Your task to perform on an android device: change the clock style Image 0: 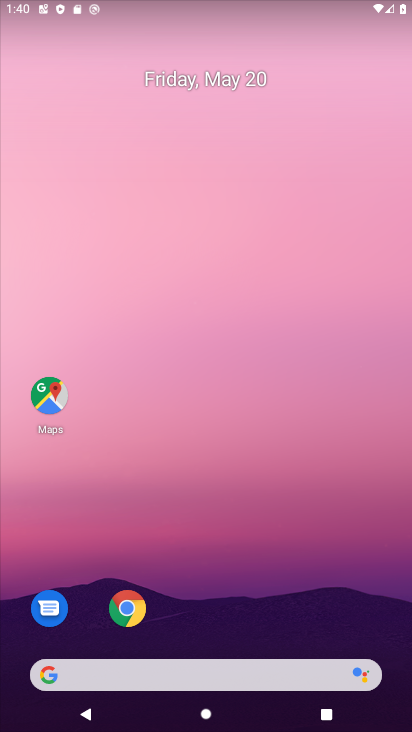
Step 0: drag from (233, 546) to (321, 66)
Your task to perform on an android device: change the clock style Image 1: 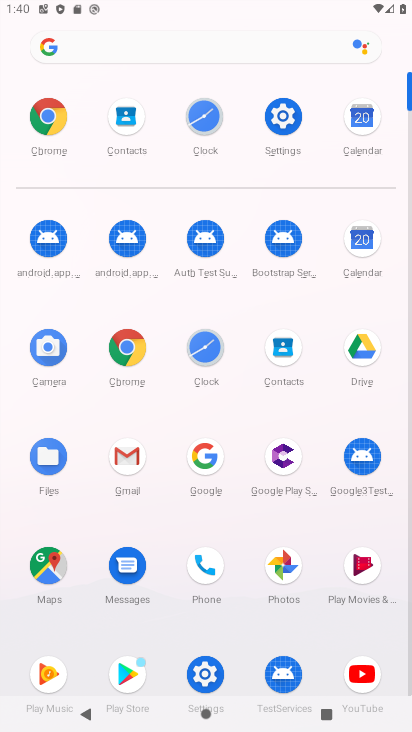
Step 1: click (206, 355)
Your task to perform on an android device: change the clock style Image 2: 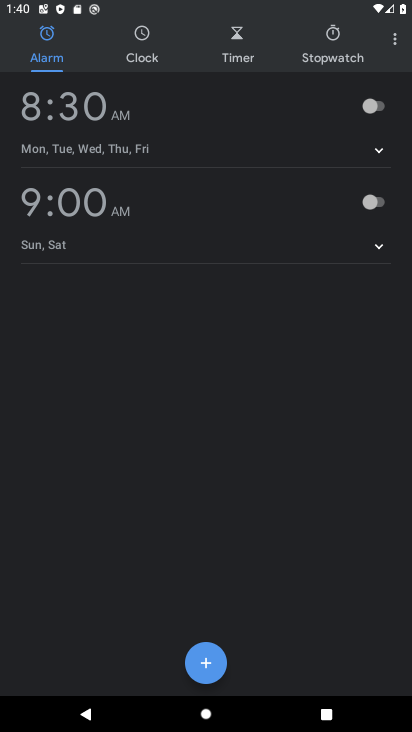
Step 2: click (397, 33)
Your task to perform on an android device: change the clock style Image 3: 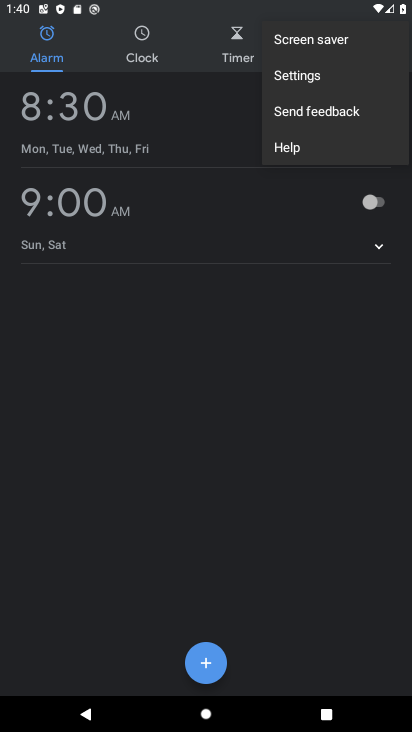
Step 3: click (332, 77)
Your task to perform on an android device: change the clock style Image 4: 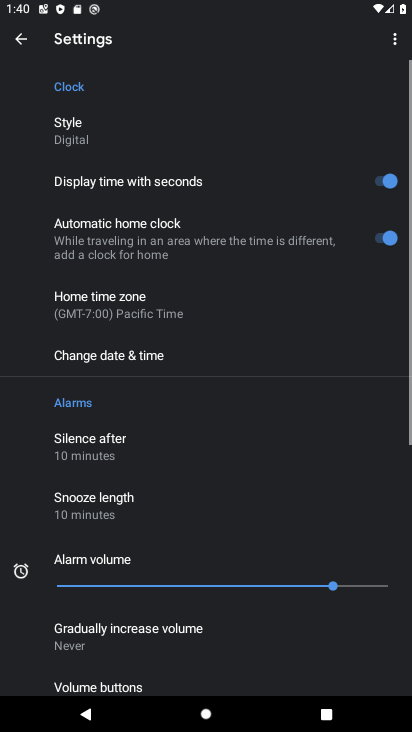
Step 4: click (115, 126)
Your task to perform on an android device: change the clock style Image 5: 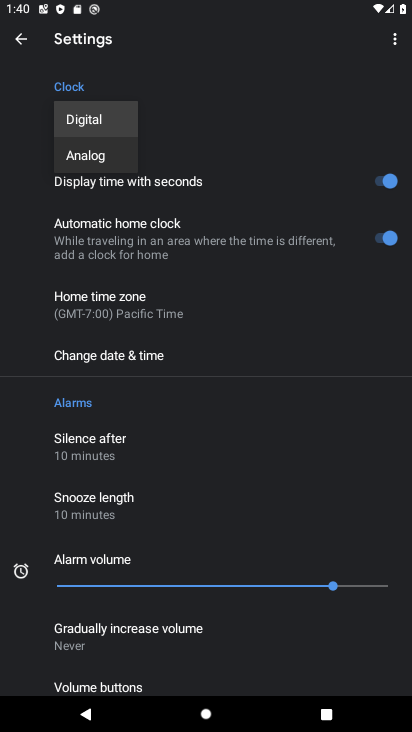
Step 5: click (82, 154)
Your task to perform on an android device: change the clock style Image 6: 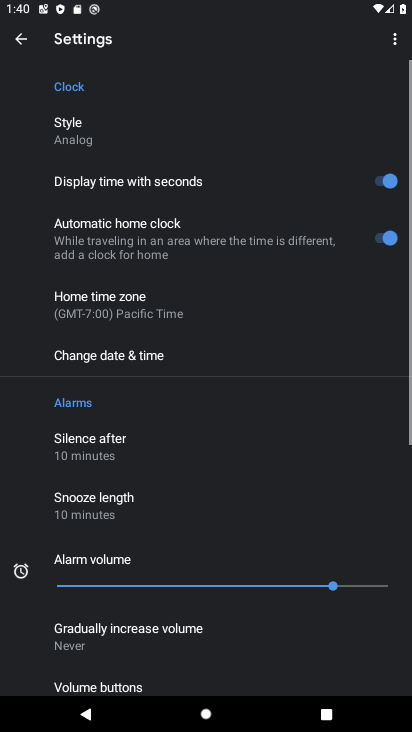
Step 6: task complete